Your task to perform on an android device: Open my contact list Image 0: 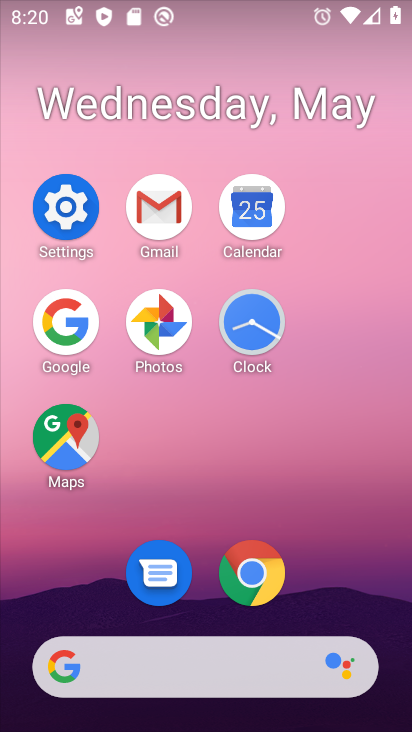
Step 0: drag from (307, 566) to (257, 206)
Your task to perform on an android device: Open my contact list Image 1: 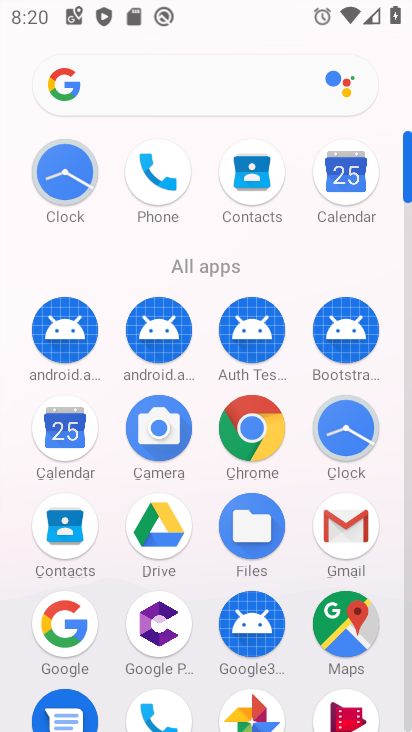
Step 1: click (56, 567)
Your task to perform on an android device: Open my contact list Image 2: 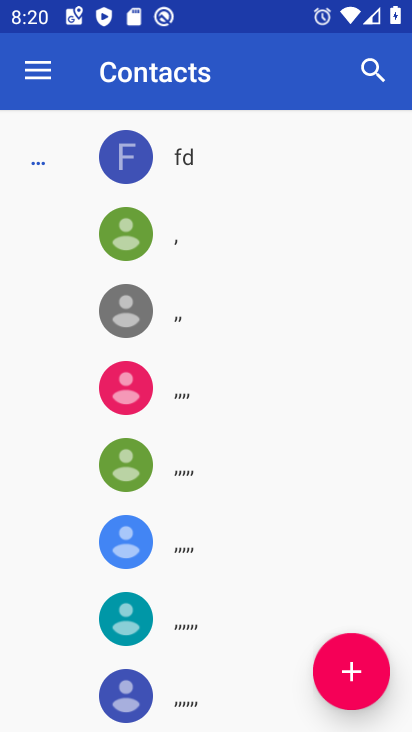
Step 2: task complete